Your task to perform on an android device: Open Google Chrome Image 0: 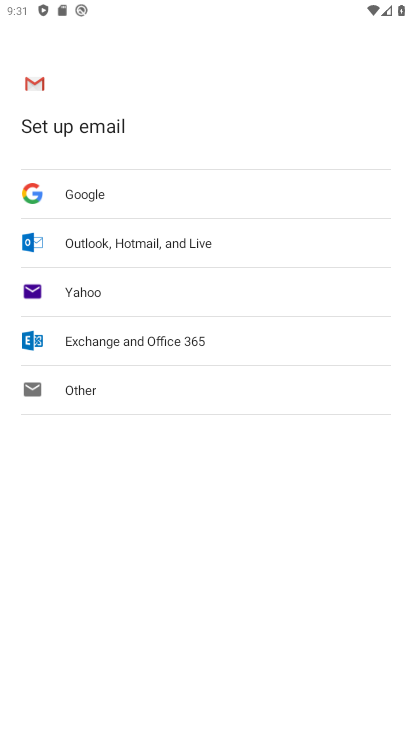
Step 0: press home button
Your task to perform on an android device: Open Google Chrome Image 1: 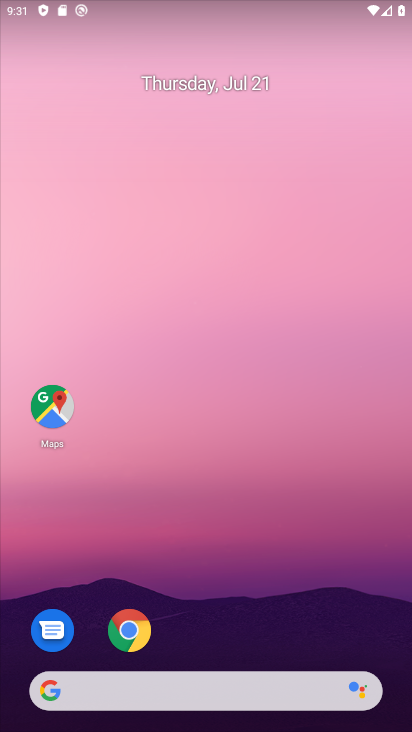
Step 1: click (114, 631)
Your task to perform on an android device: Open Google Chrome Image 2: 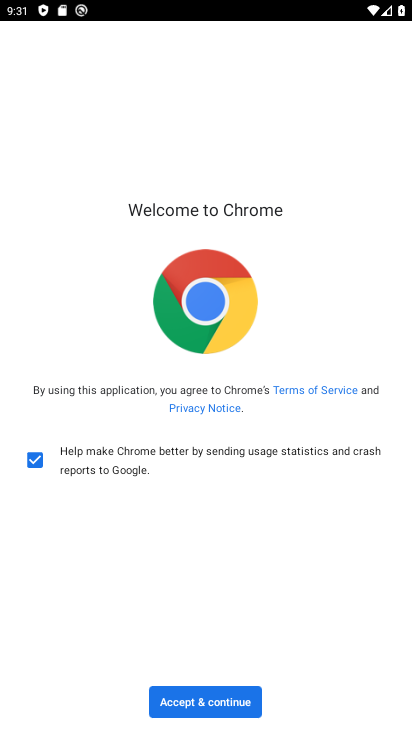
Step 2: click (205, 712)
Your task to perform on an android device: Open Google Chrome Image 3: 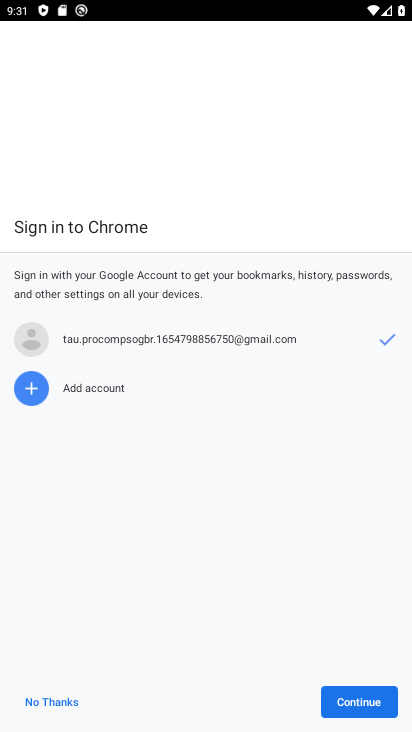
Step 3: click (356, 706)
Your task to perform on an android device: Open Google Chrome Image 4: 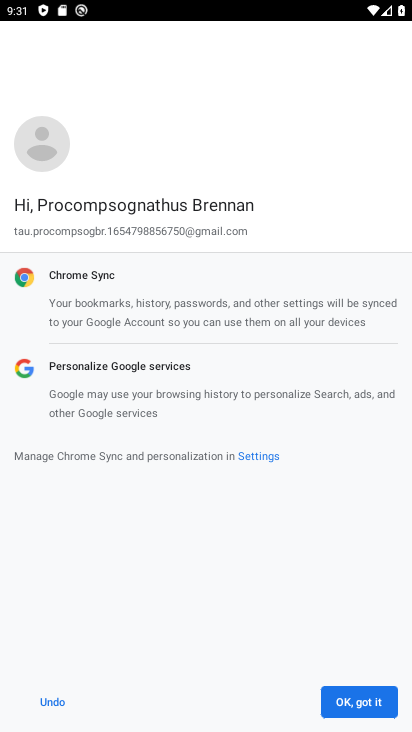
Step 4: click (356, 706)
Your task to perform on an android device: Open Google Chrome Image 5: 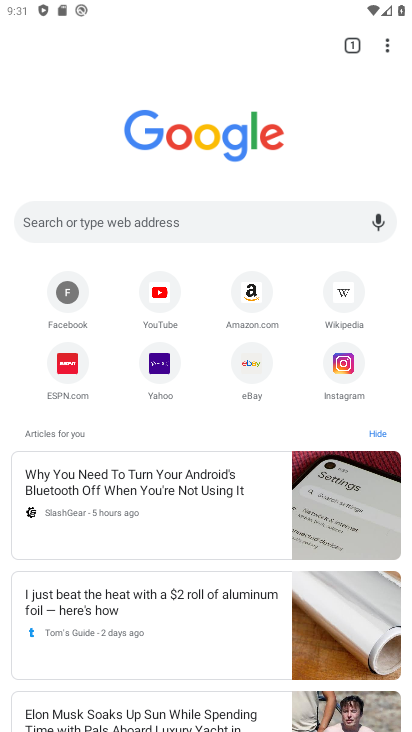
Step 5: task complete